Your task to perform on an android device: Open wifi settings Image 0: 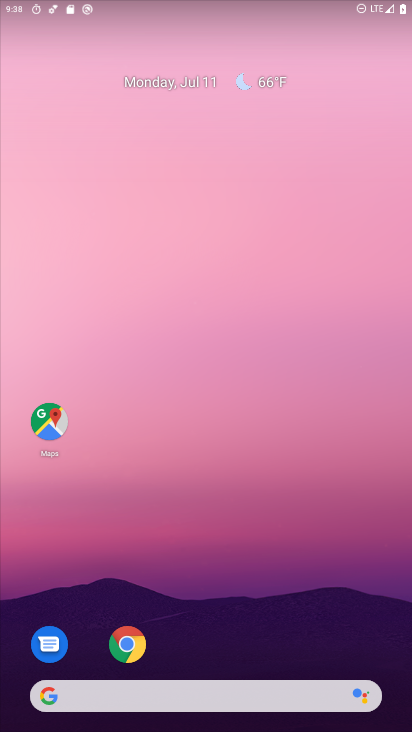
Step 0: drag from (285, 483) to (279, 147)
Your task to perform on an android device: Open wifi settings Image 1: 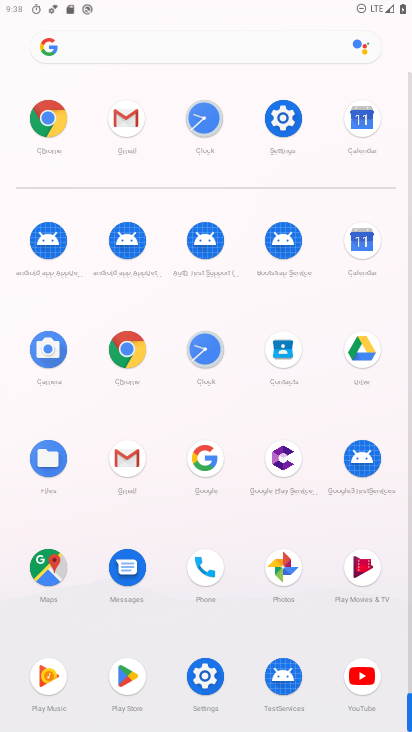
Step 1: click (291, 114)
Your task to perform on an android device: Open wifi settings Image 2: 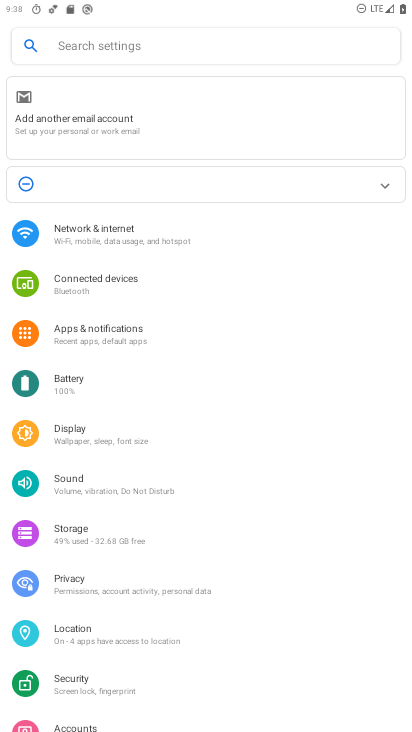
Step 2: click (71, 246)
Your task to perform on an android device: Open wifi settings Image 3: 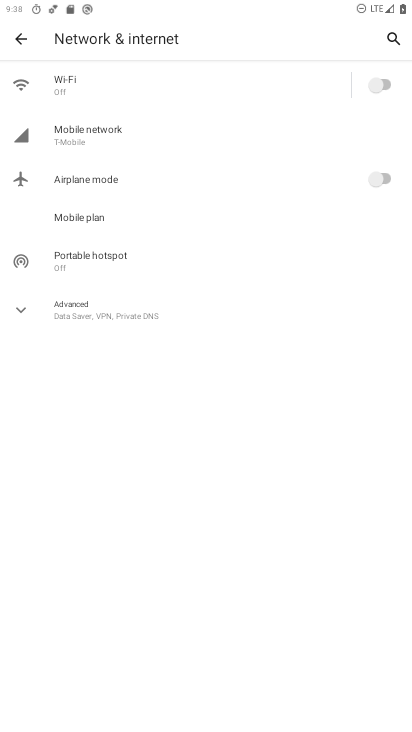
Step 3: click (336, 82)
Your task to perform on an android device: Open wifi settings Image 4: 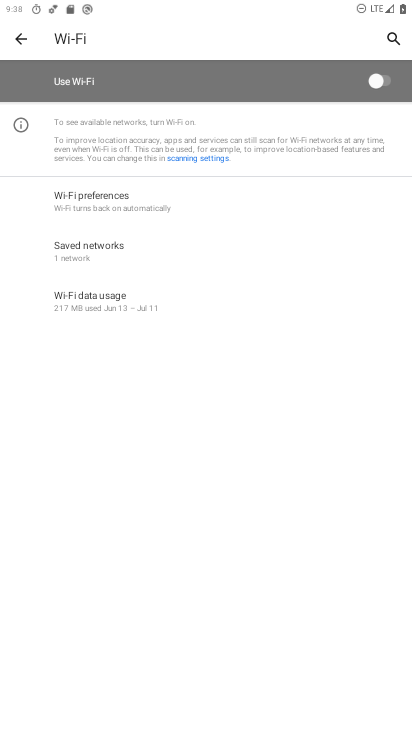
Step 4: click (368, 82)
Your task to perform on an android device: Open wifi settings Image 5: 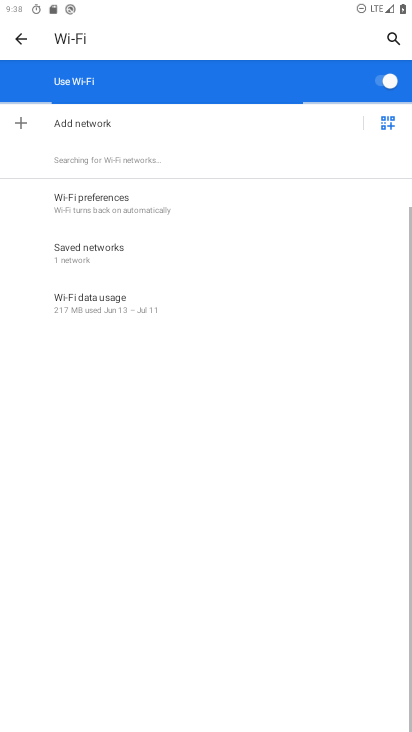
Step 5: click (381, 126)
Your task to perform on an android device: Open wifi settings Image 6: 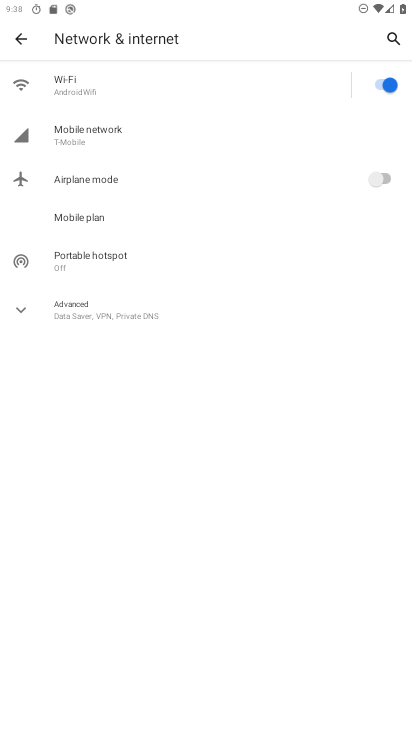
Step 6: click (287, 87)
Your task to perform on an android device: Open wifi settings Image 7: 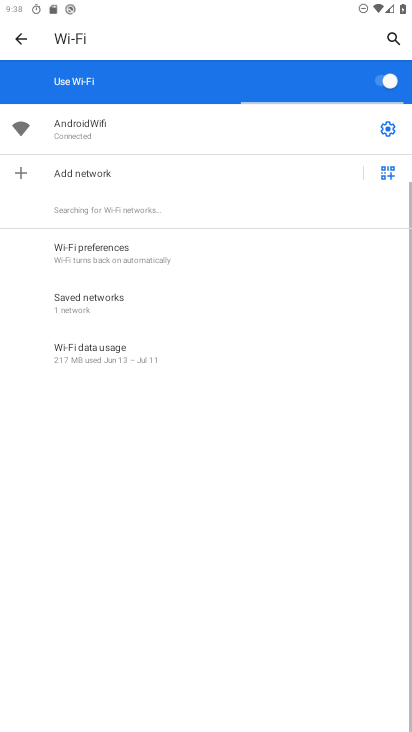
Step 7: click (394, 133)
Your task to perform on an android device: Open wifi settings Image 8: 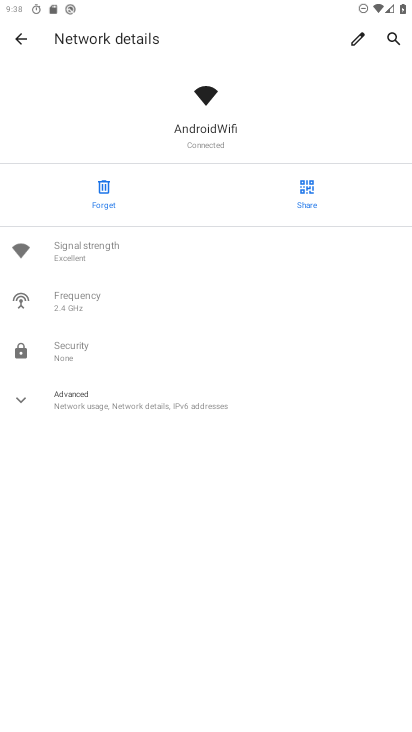
Step 8: task complete